Your task to perform on an android device: turn on data saver in the chrome app Image 0: 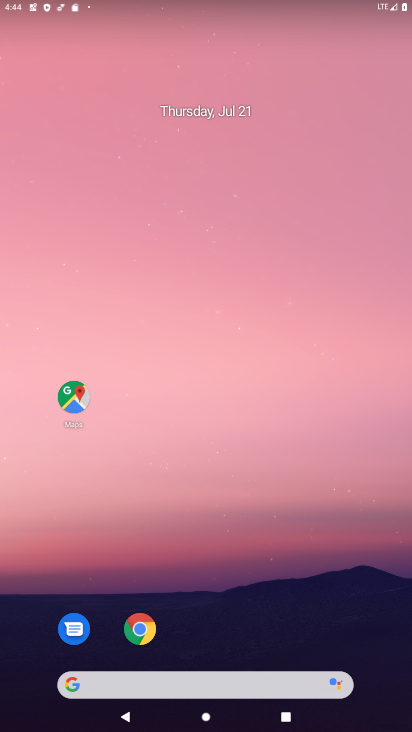
Step 0: press home button
Your task to perform on an android device: turn on data saver in the chrome app Image 1: 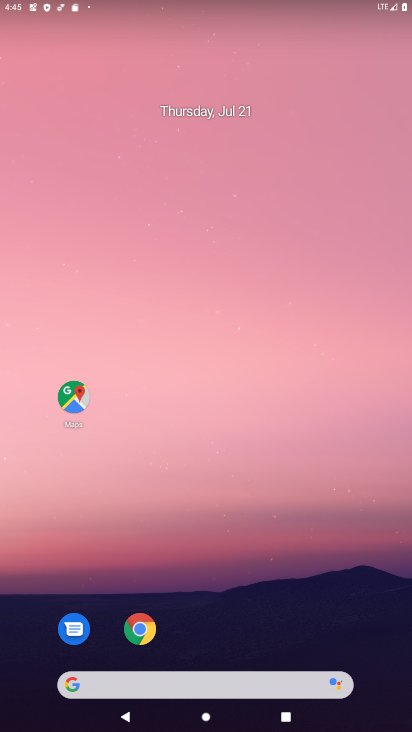
Step 1: click (131, 622)
Your task to perform on an android device: turn on data saver in the chrome app Image 2: 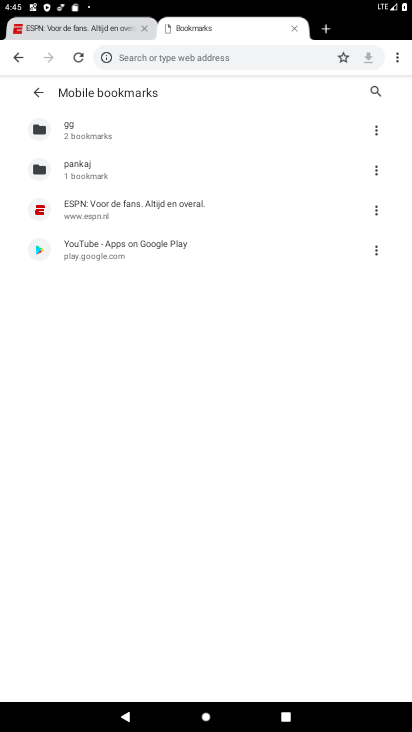
Step 2: click (392, 55)
Your task to perform on an android device: turn on data saver in the chrome app Image 3: 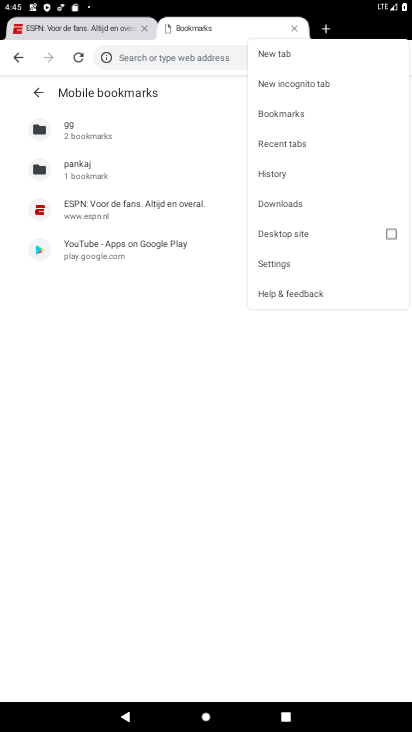
Step 3: click (295, 258)
Your task to perform on an android device: turn on data saver in the chrome app Image 4: 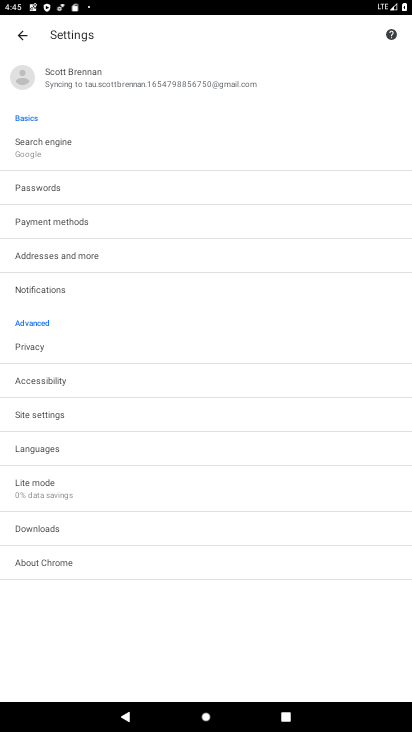
Step 4: click (60, 489)
Your task to perform on an android device: turn on data saver in the chrome app Image 5: 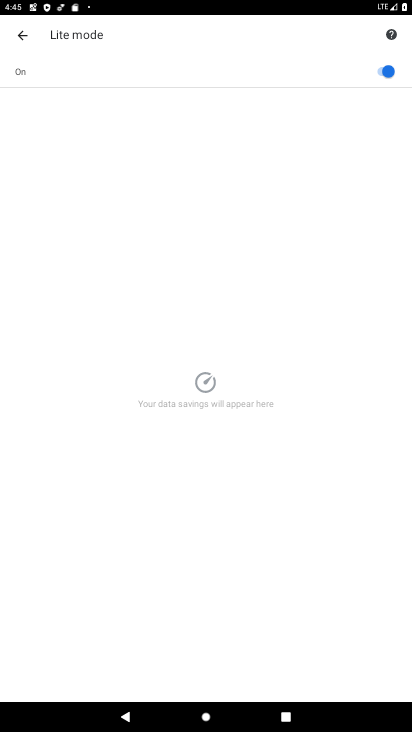
Step 5: task complete